Your task to perform on an android device: turn off javascript in the chrome app Image 0: 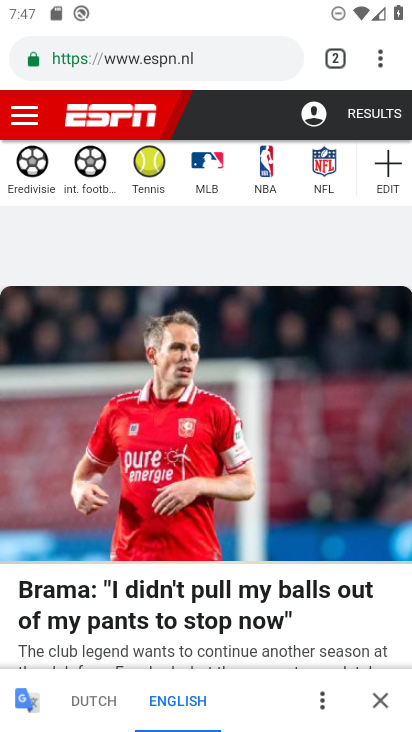
Step 0: press home button
Your task to perform on an android device: turn off javascript in the chrome app Image 1: 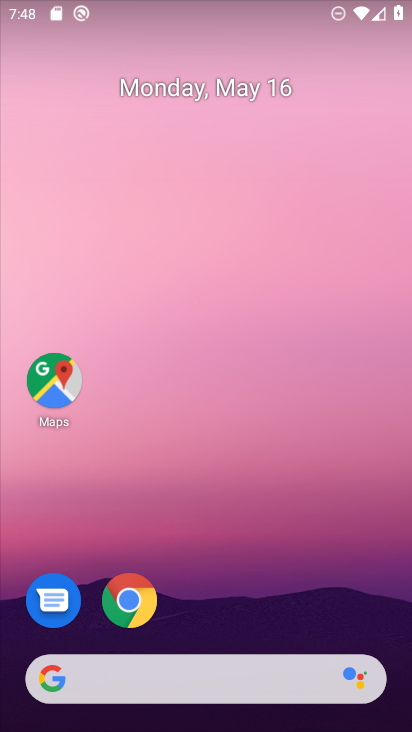
Step 1: click (135, 595)
Your task to perform on an android device: turn off javascript in the chrome app Image 2: 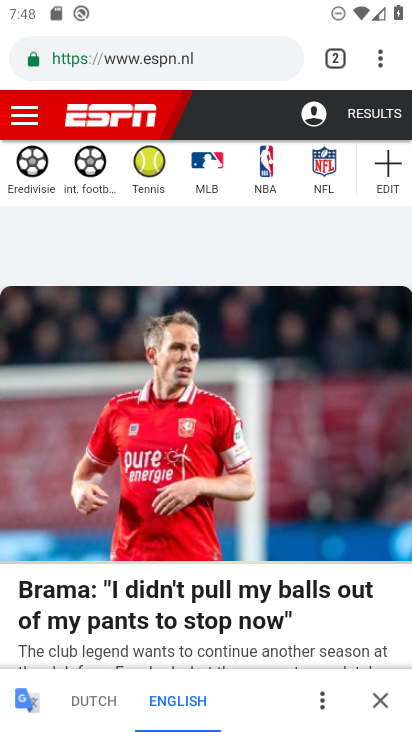
Step 2: drag from (382, 53) to (252, 630)
Your task to perform on an android device: turn off javascript in the chrome app Image 3: 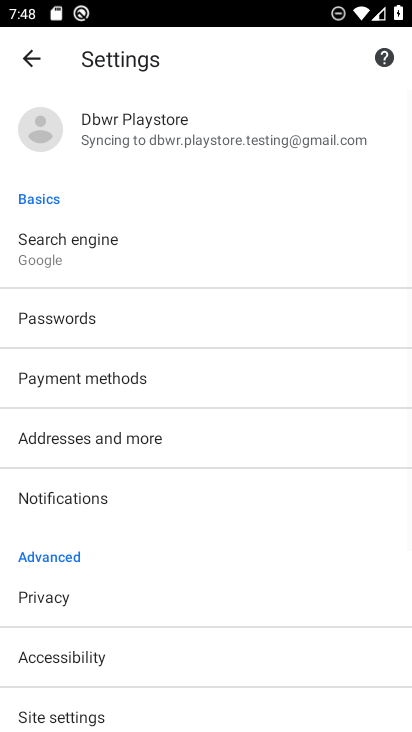
Step 3: drag from (119, 612) to (248, 333)
Your task to perform on an android device: turn off javascript in the chrome app Image 4: 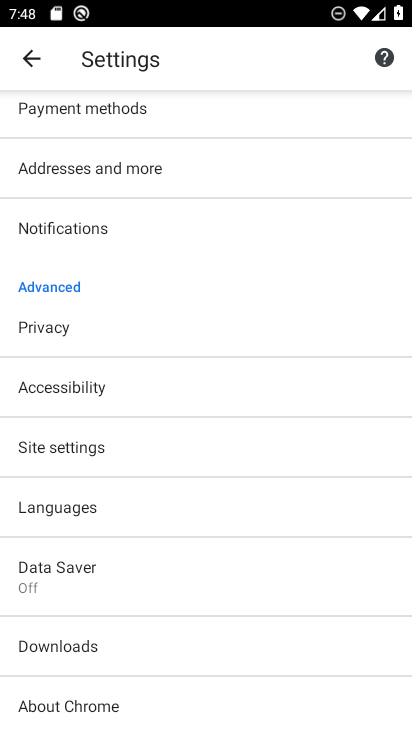
Step 4: click (59, 451)
Your task to perform on an android device: turn off javascript in the chrome app Image 5: 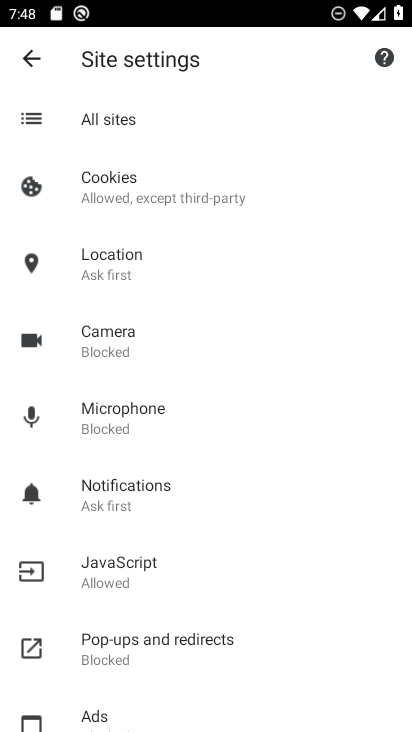
Step 5: click (130, 558)
Your task to perform on an android device: turn off javascript in the chrome app Image 6: 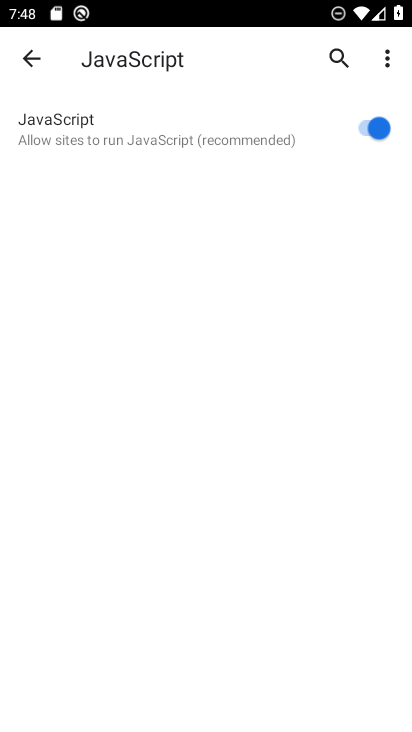
Step 6: click (365, 120)
Your task to perform on an android device: turn off javascript in the chrome app Image 7: 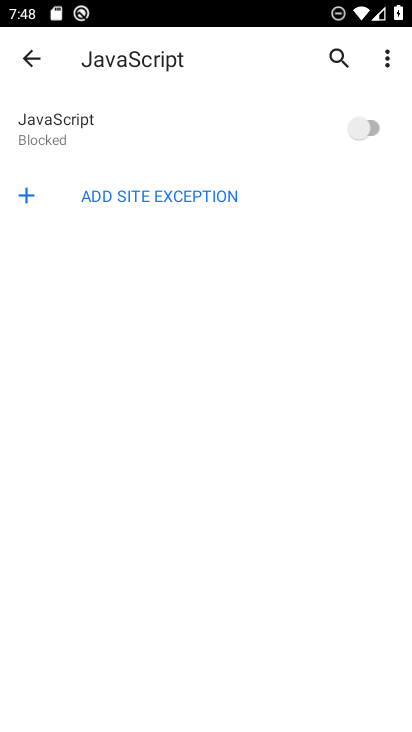
Step 7: task complete